Your task to perform on an android device: stop showing notifications on the lock screen Image 0: 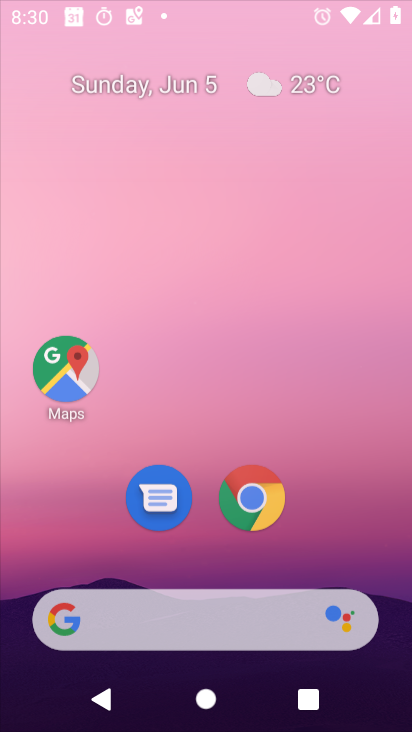
Step 0: click (220, 634)
Your task to perform on an android device: stop showing notifications on the lock screen Image 1: 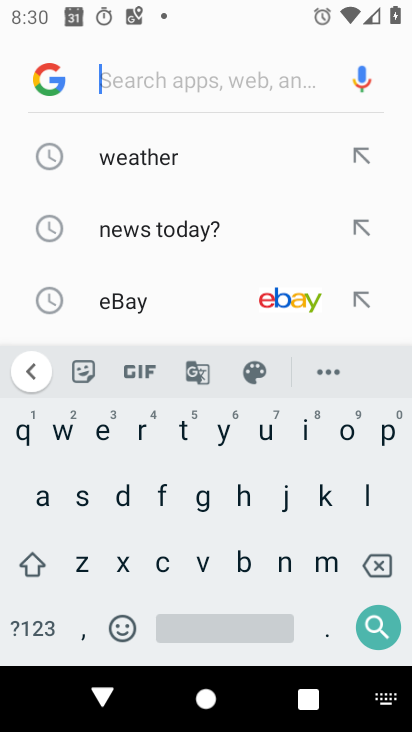
Step 1: press home button
Your task to perform on an android device: stop showing notifications on the lock screen Image 2: 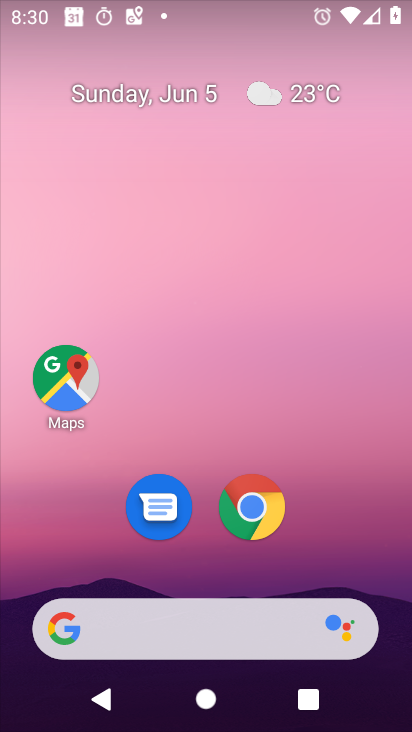
Step 2: drag from (247, 578) to (213, 77)
Your task to perform on an android device: stop showing notifications on the lock screen Image 3: 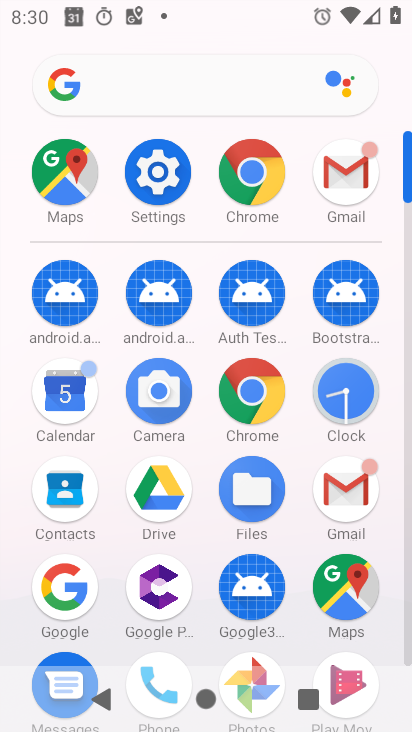
Step 3: click (157, 182)
Your task to perform on an android device: stop showing notifications on the lock screen Image 4: 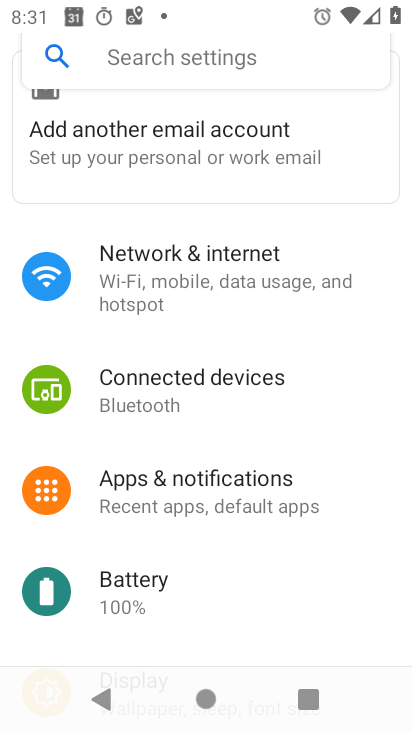
Step 4: click (194, 62)
Your task to perform on an android device: stop showing notifications on the lock screen Image 5: 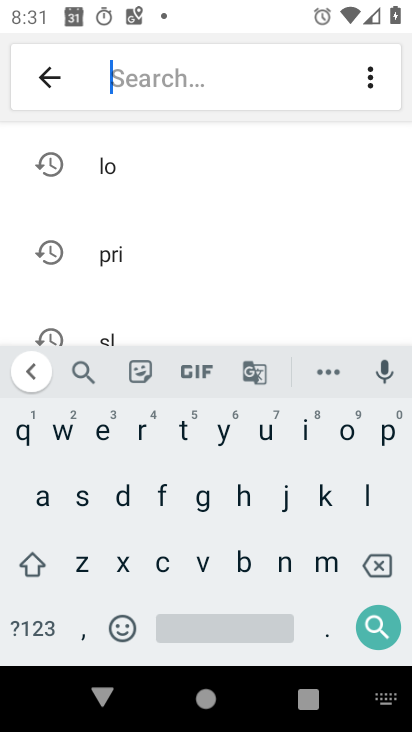
Step 5: click (286, 567)
Your task to perform on an android device: stop showing notifications on the lock screen Image 6: 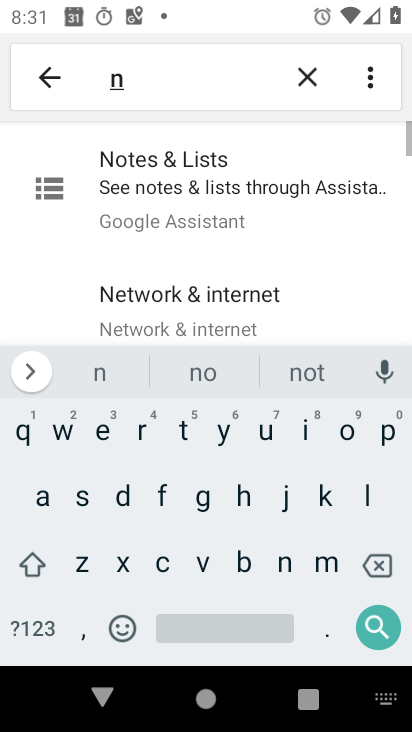
Step 6: click (347, 440)
Your task to perform on an android device: stop showing notifications on the lock screen Image 7: 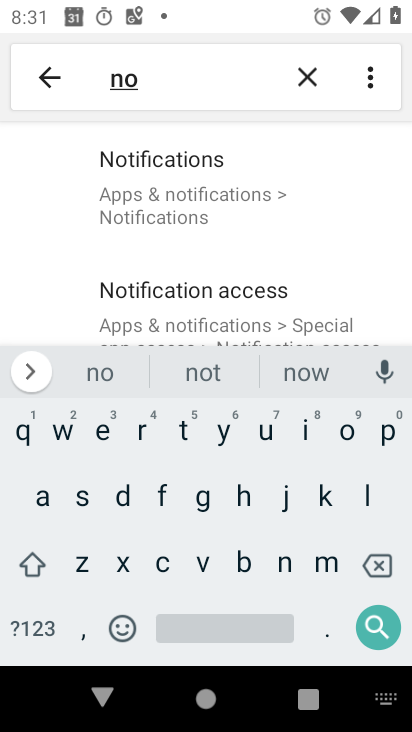
Step 7: click (218, 173)
Your task to perform on an android device: stop showing notifications on the lock screen Image 8: 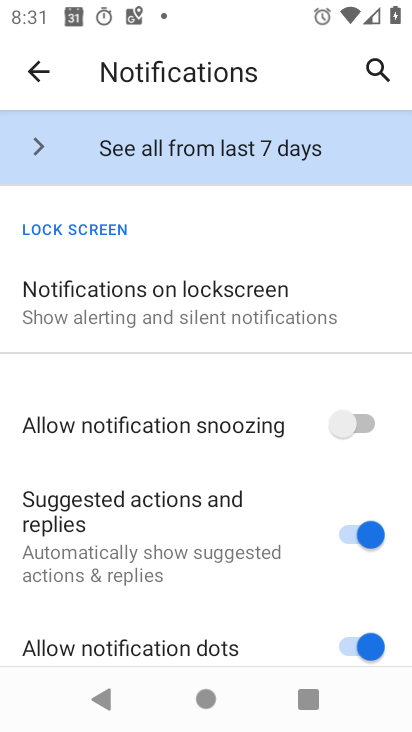
Step 8: click (161, 284)
Your task to perform on an android device: stop showing notifications on the lock screen Image 9: 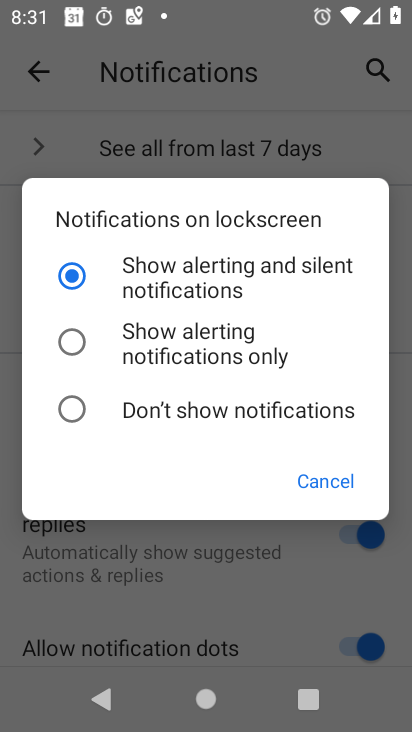
Step 9: click (127, 410)
Your task to perform on an android device: stop showing notifications on the lock screen Image 10: 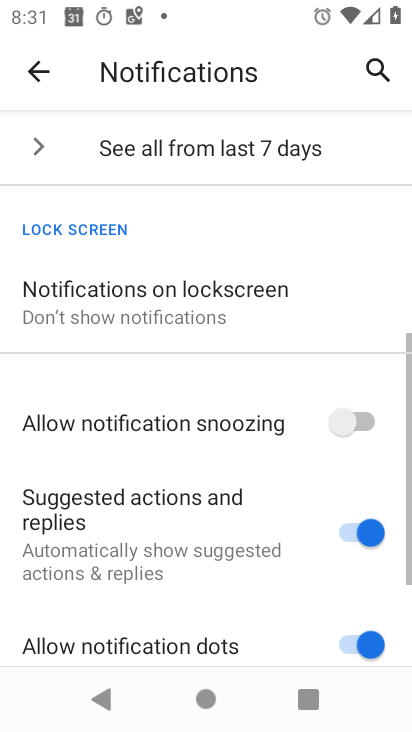
Step 10: task complete